Your task to perform on an android device: turn on the 24-hour format for clock Image 0: 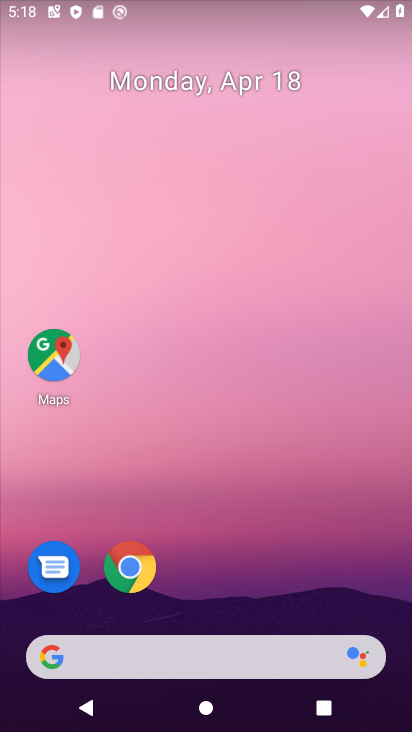
Step 0: drag from (339, 569) to (324, 27)
Your task to perform on an android device: turn on the 24-hour format for clock Image 1: 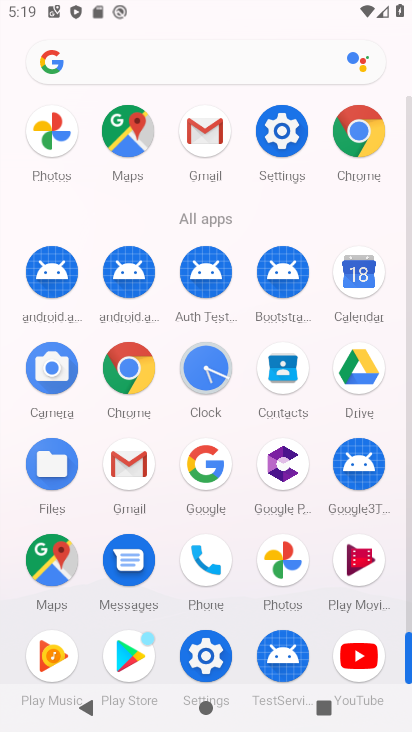
Step 1: click (203, 363)
Your task to perform on an android device: turn on the 24-hour format for clock Image 2: 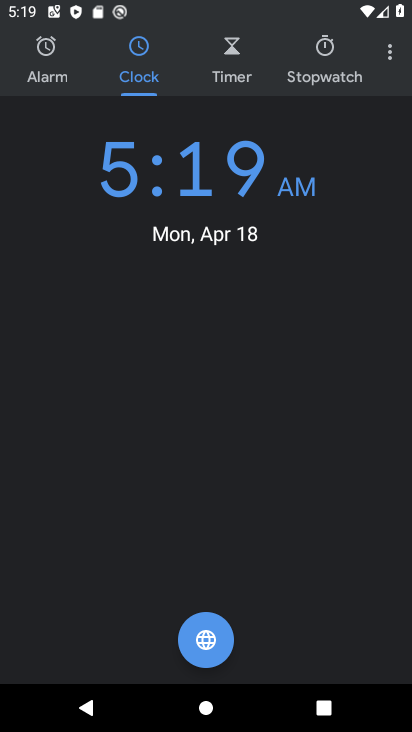
Step 2: click (395, 64)
Your task to perform on an android device: turn on the 24-hour format for clock Image 3: 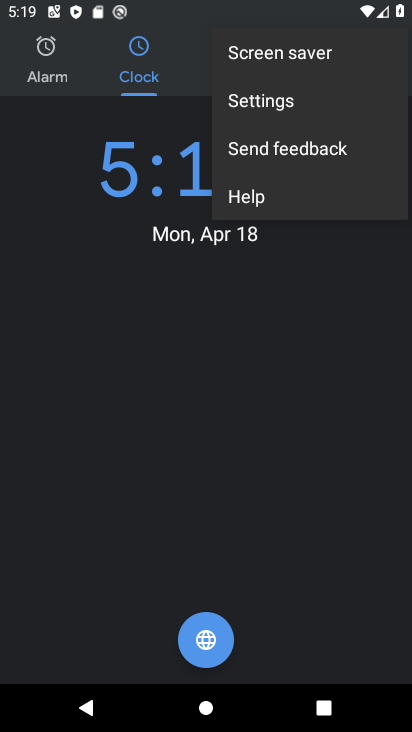
Step 3: click (309, 98)
Your task to perform on an android device: turn on the 24-hour format for clock Image 4: 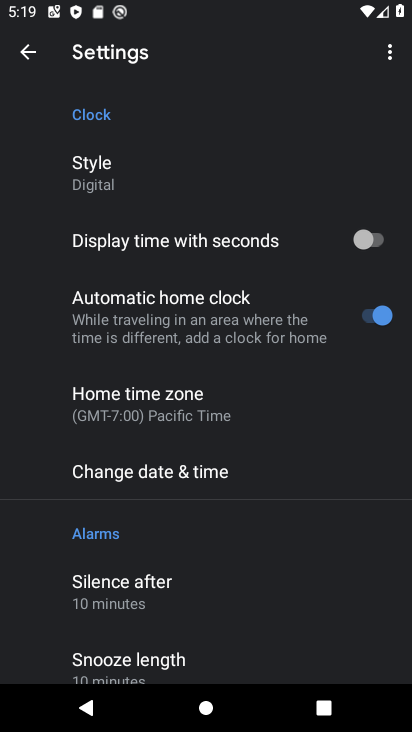
Step 4: drag from (241, 514) to (235, 187)
Your task to perform on an android device: turn on the 24-hour format for clock Image 5: 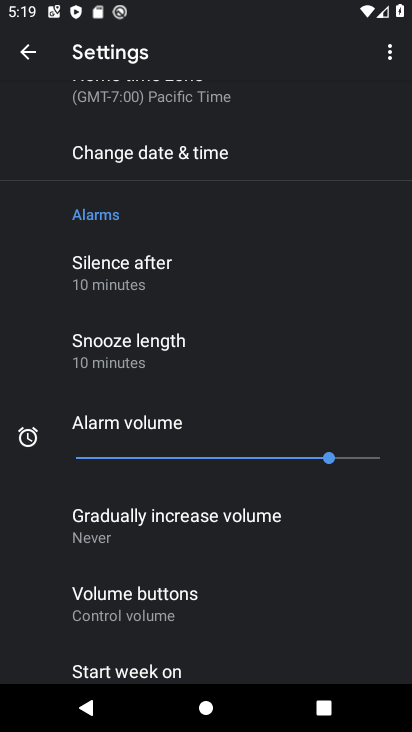
Step 5: click (225, 157)
Your task to perform on an android device: turn on the 24-hour format for clock Image 6: 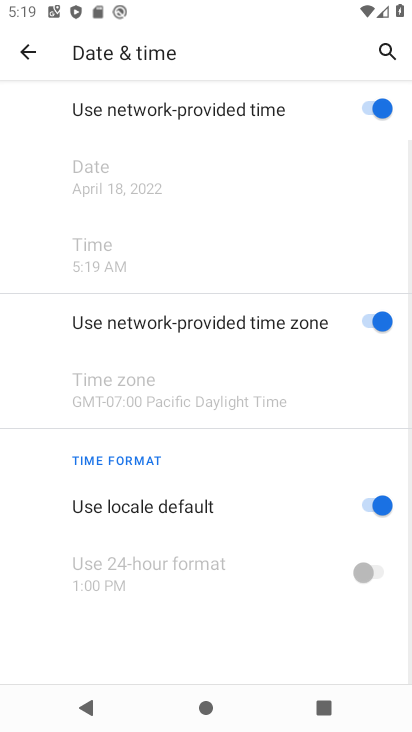
Step 6: drag from (217, 498) to (210, 141)
Your task to perform on an android device: turn on the 24-hour format for clock Image 7: 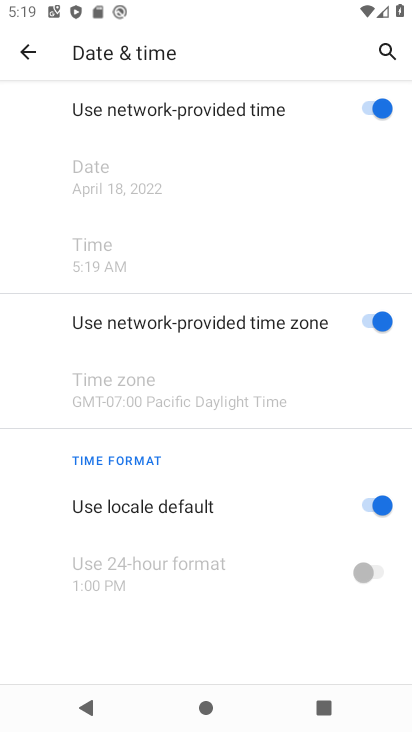
Step 7: click (362, 510)
Your task to perform on an android device: turn on the 24-hour format for clock Image 8: 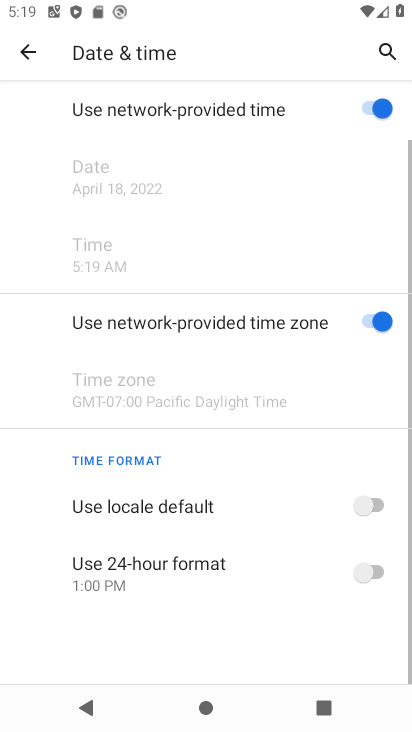
Step 8: click (374, 567)
Your task to perform on an android device: turn on the 24-hour format for clock Image 9: 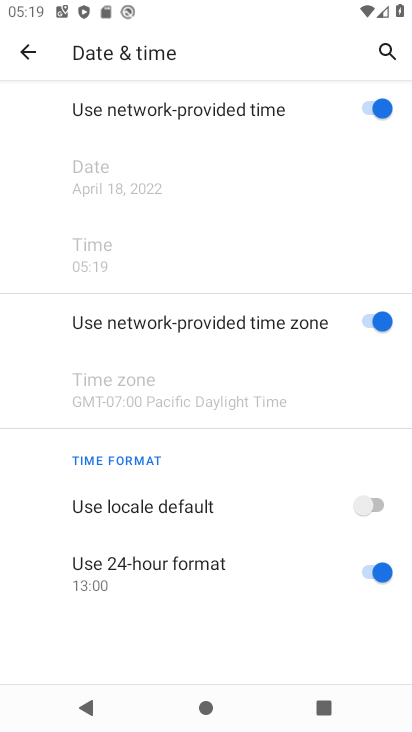
Step 9: task complete